Your task to perform on an android device: see creations saved in the google photos Image 0: 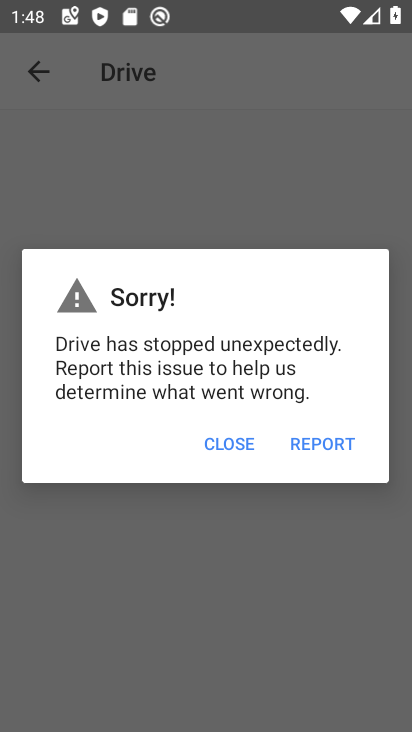
Step 0: press home button
Your task to perform on an android device: see creations saved in the google photos Image 1: 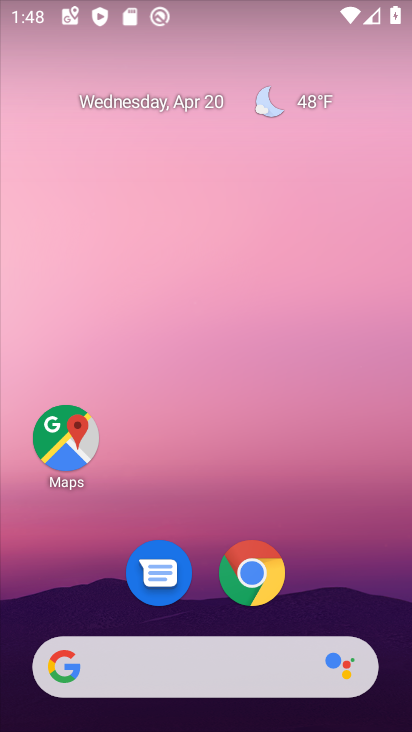
Step 1: drag from (182, 672) to (264, 152)
Your task to perform on an android device: see creations saved in the google photos Image 2: 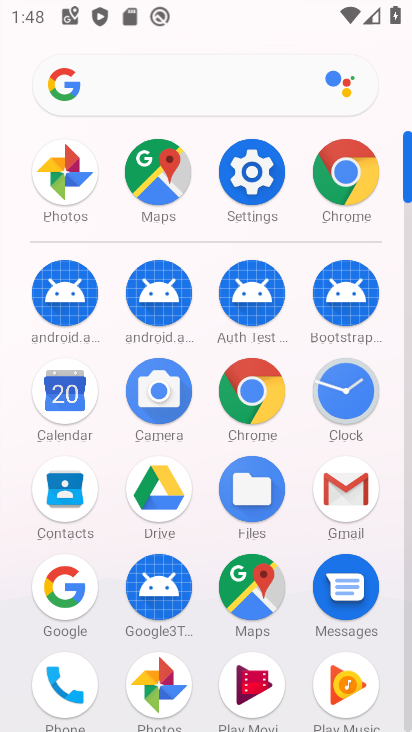
Step 2: drag from (214, 556) to (270, 327)
Your task to perform on an android device: see creations saved in the google photos Image 3: 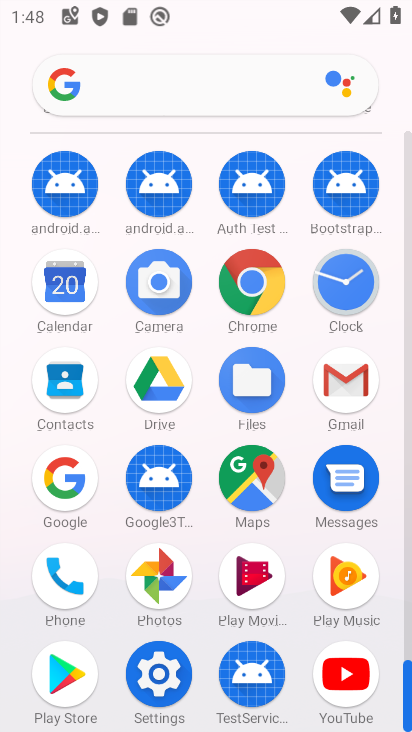
Step 3: click (157, 582)
Your task to perform on an android device: see creations saved in the google photos Image 4: 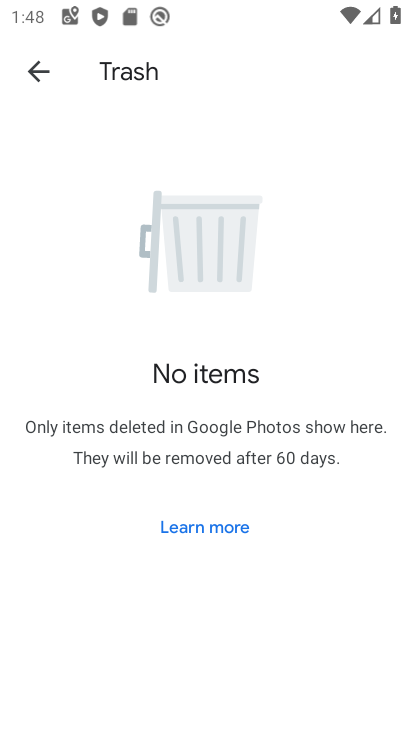
Step 4: click (43, 70)
Your task to perform on an android device: see creations saved in the google photos Image 5: 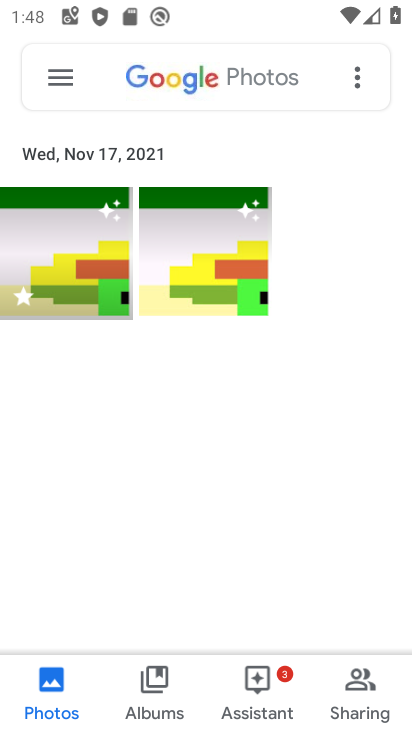
Step 5: click (159, 681)
Your task to perform on an android device: see creations saved in the google photos Image 6: 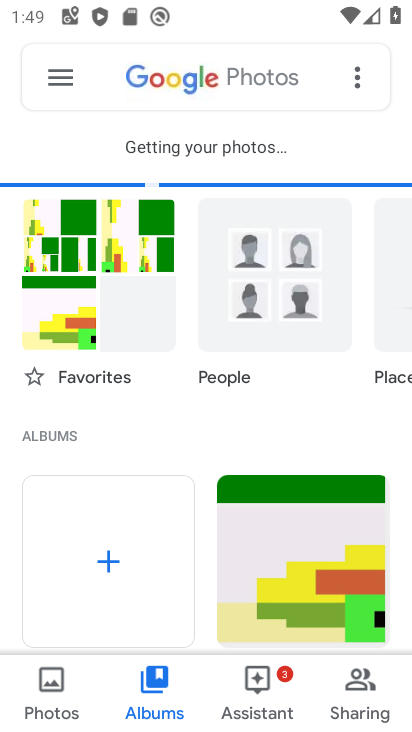
Step 6: click (263, 71)
Your task to perform on an android device: see creations saved in the google photos Image 7: 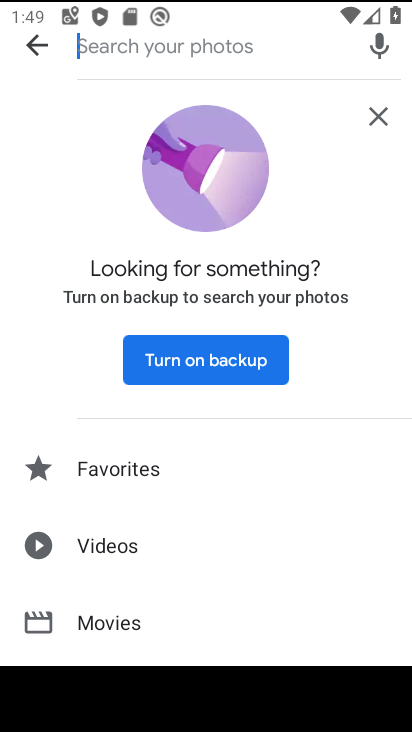
Step 7: drag from (192, 545) to (365, 85)
Your task to perform on an android device: see creations saved in the google photos Image 8: 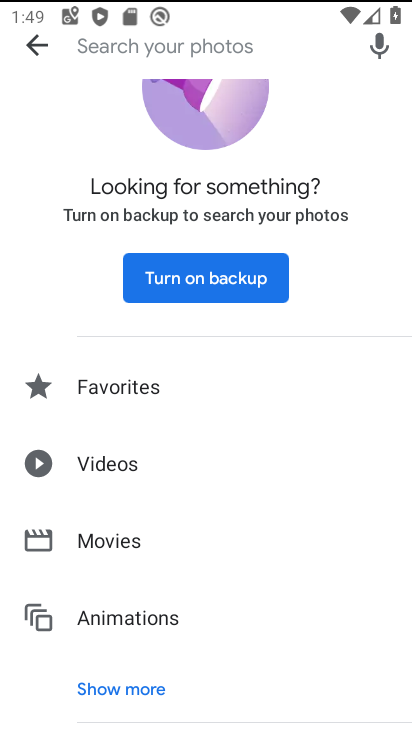
Step 8: click (122, 682)
Your task to perform on an android device: see creations saved in the google photos Image 9: 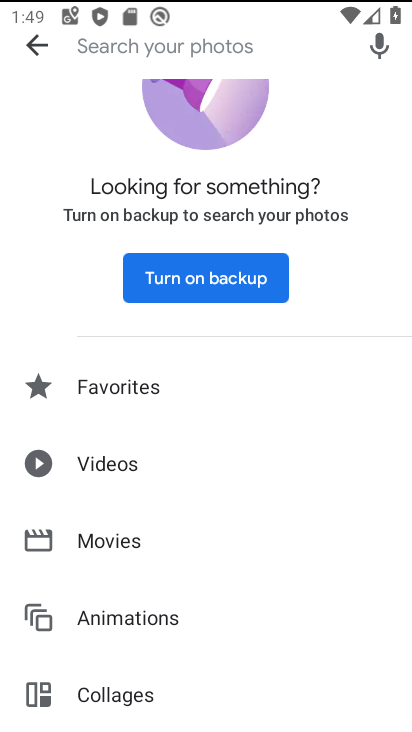
Step 9: drag from (187, 614) to (340, 195)
Your task to perform on an android device: see creations saved in the google photos Image 10: 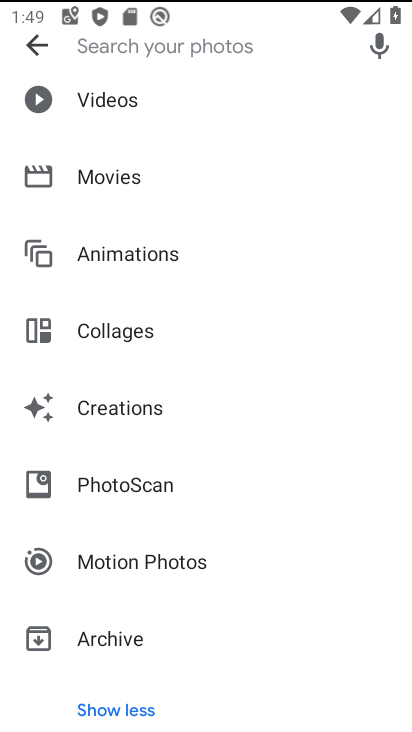
Step 10: click (142, 405)
Your task to perform on an android device: see creations saved in the google photos Image 11: 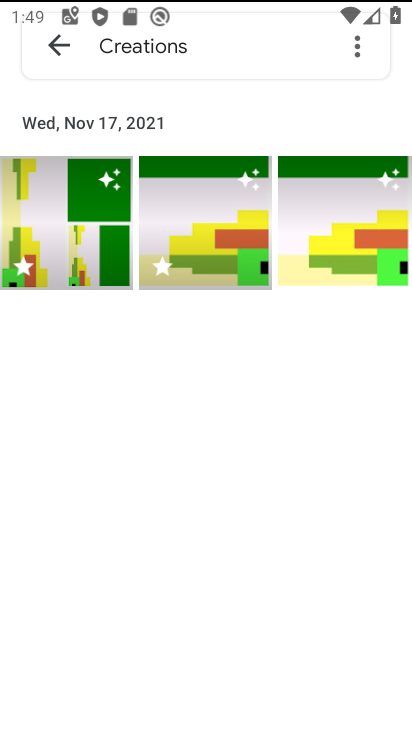
Step 11: task complete